Your task to perform on an android device: Open Youtube and go to the subscriptions tab Image 0: 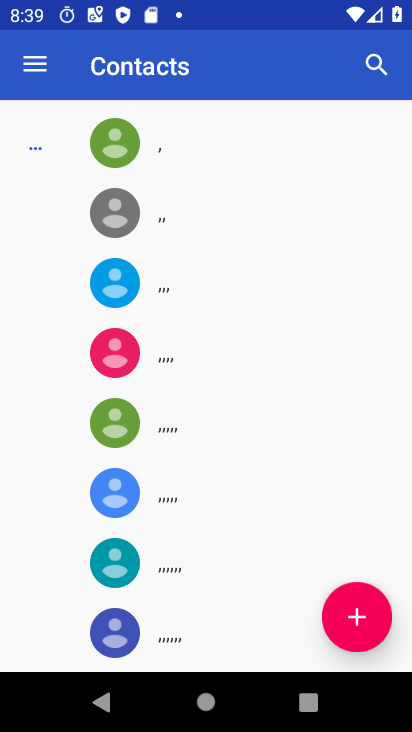
Step 0: press home button
Your task to perform on an android device: Open Youtube and go to the subscriptions tab Image 1: 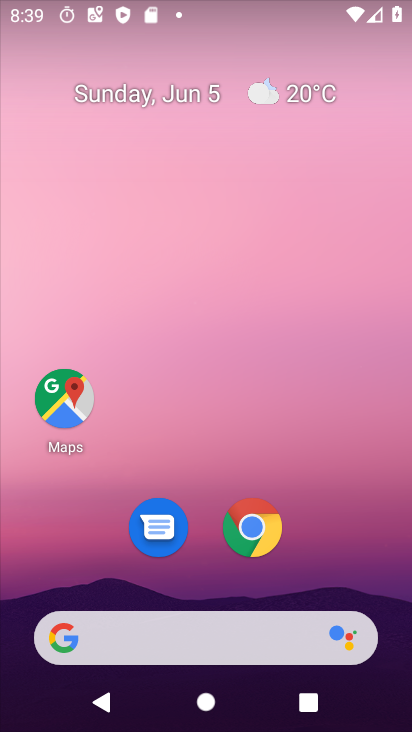
Step 1: drag from (234, 687) to (174, 135)
Your task to perform on an android device: Open Youtube and go to the subscriptions tab Image 2: 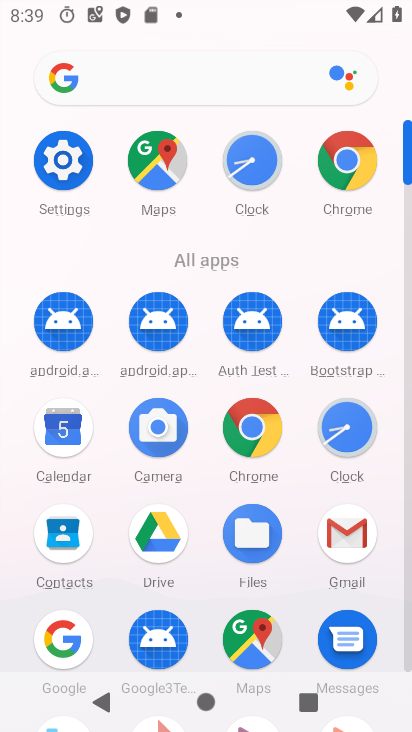
Step 2: drag from (306, 599) to (280, 222)
Your task to perform on an android device: Open Youtube and go to the subscriptions tab Image 3: 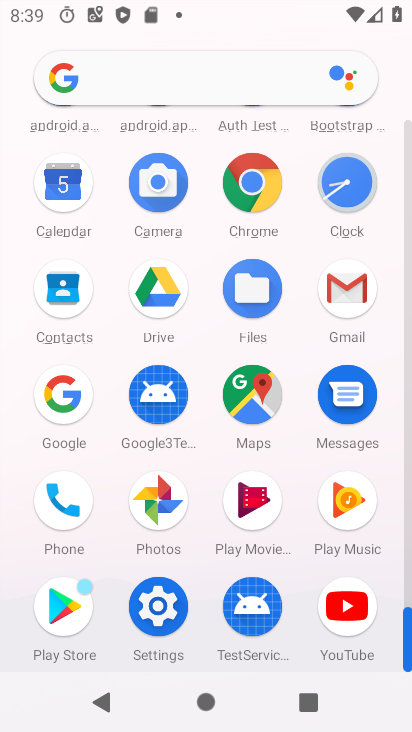
Step 3: click (355, 613)
Your task to perform on an android device: Open Youtube and go to the subscriptions tab Image 4: 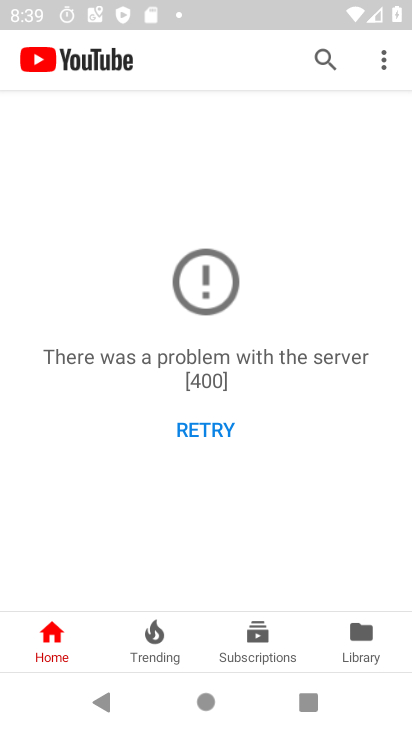
Step 4: click (259, 634)
Your task to perform on an android device: Open Youtube and go to the subscriptions tab Image 5: 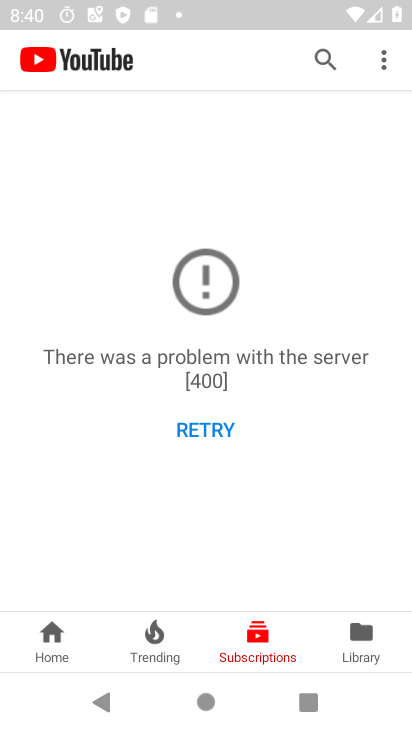
Step 5: click (259, 634)
Your task to perform on an android device: Open Youtube and go to the subscriptions tab Image 6: 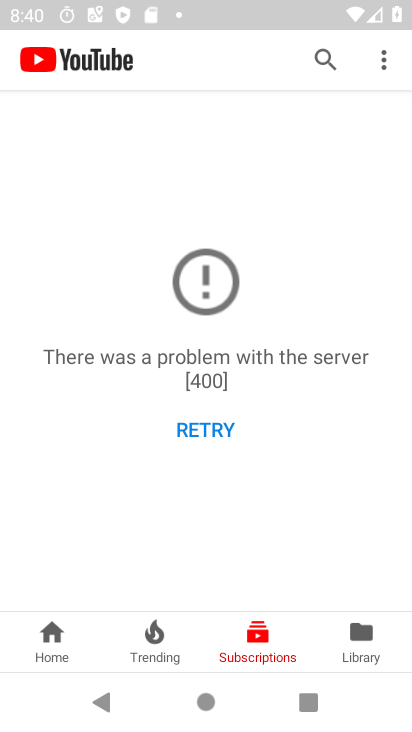
Step 6: click (259, 634)
Your task to perform on an android device: Open Youtube and go to the subscriptions tab Image 7: 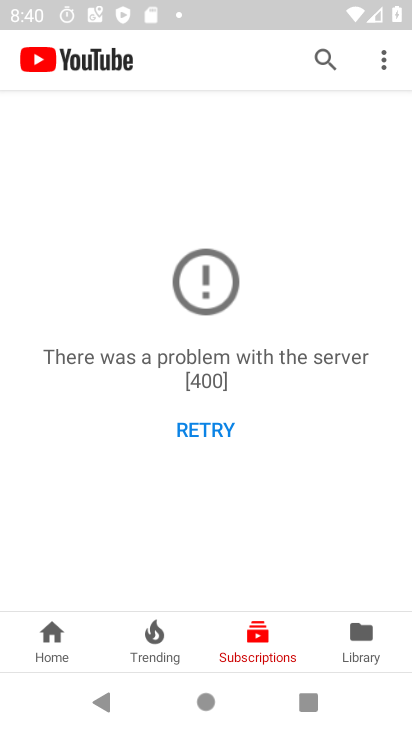
Step 7: task complete